Your task to perform on an android device: allow cookies in the chrome app Image 0: 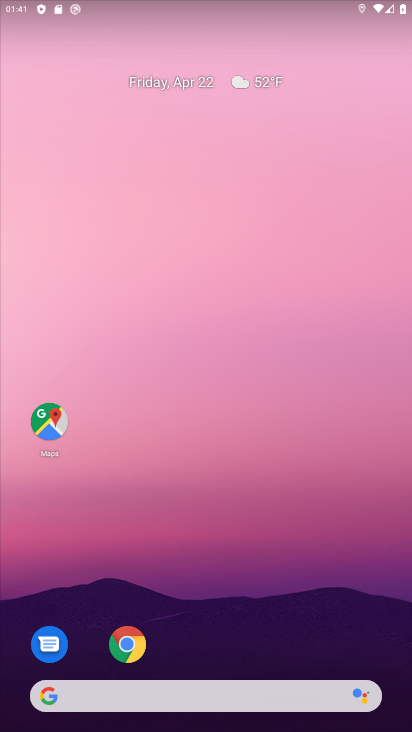
Step 0: click (134, 646)
Your task to perform on an android device: allow cookies in the chrome app Image 1: 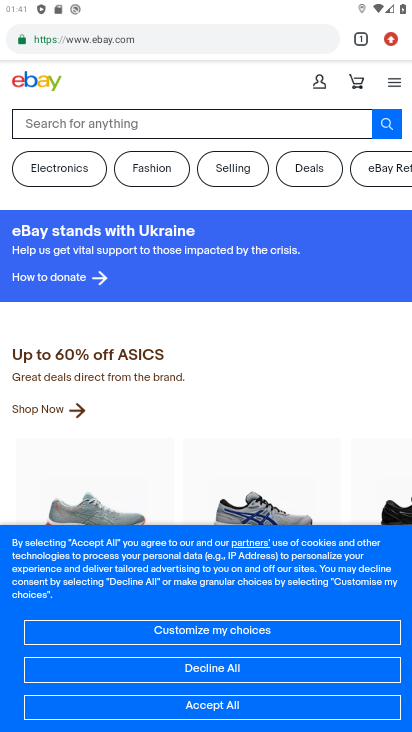
Step 1: click (395, 55)
Your task to perform on an android device: allow cookies in the chrome app Image 2: 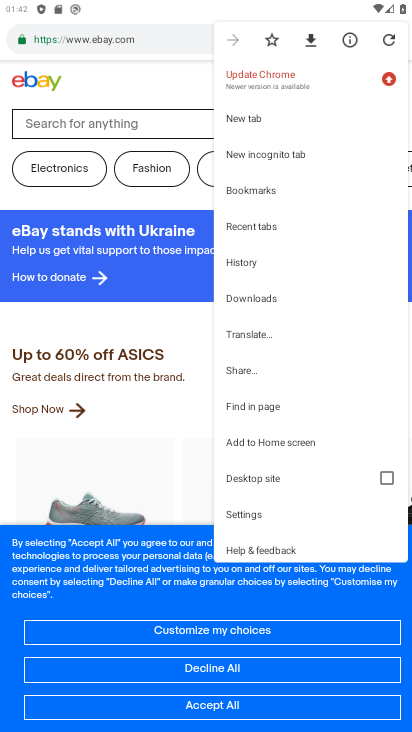
Step 2: click (294, 508)
Your task to perform on an android device: allow cookies in the chrome app Image 3: 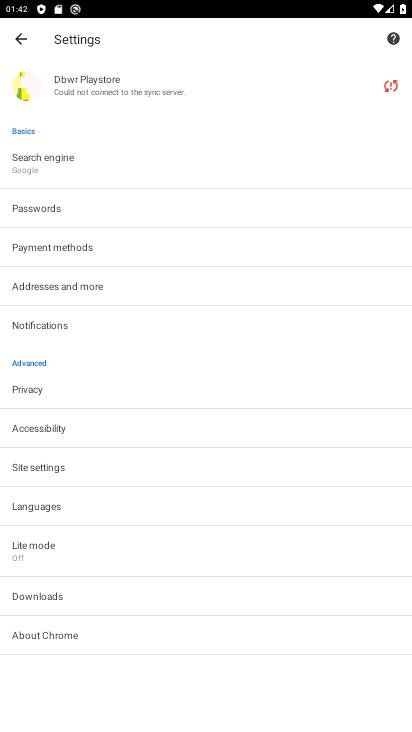
Step 3: click (197, 475)
Your task to perform on an android device: allow cookies in the chrome app Image 4: 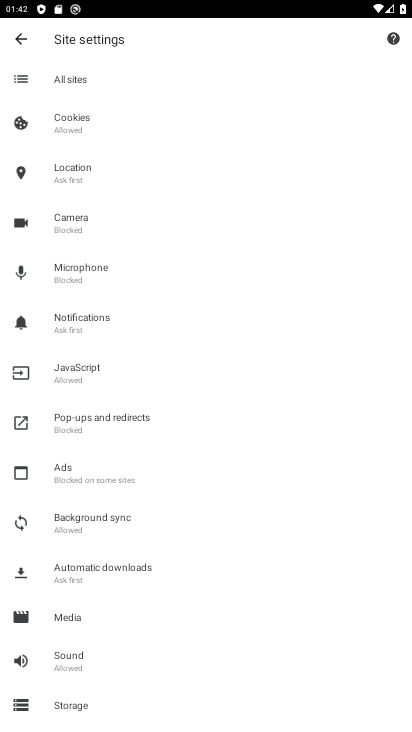
Step 4: click (178, 121)
Your task to perform on an android device: allow cookies in the chrome app Image 5: 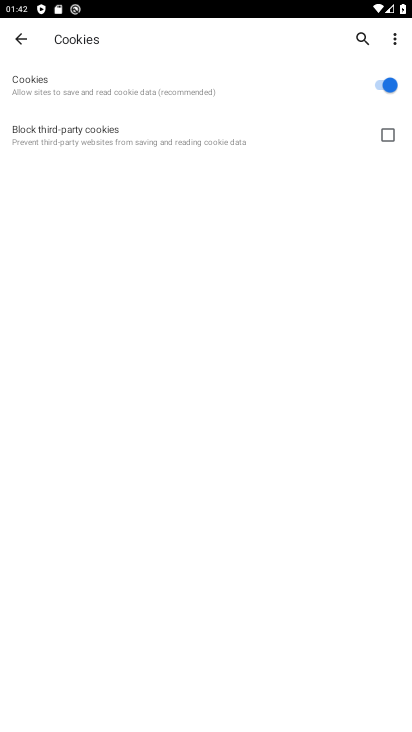
Step 5: task complete